Your task to perform on an android device: How do I get to the nearest Verizon Store? Image 0: 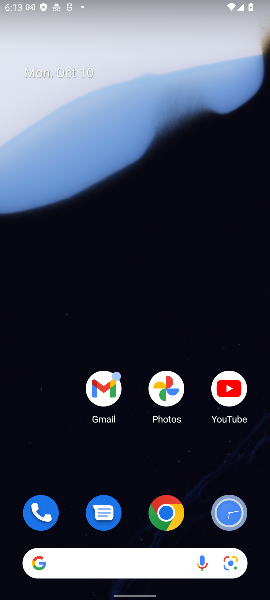
Step 0: click (156, 563)
Your task to perform on an android device: How do I get to the nearest Verizon Store? Image 1: 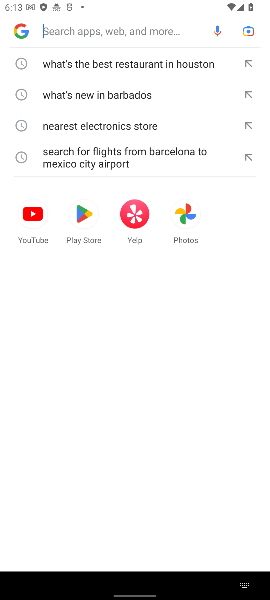
Step 1: type "How do I get to the nearest Verizon Store?"
Your task to perform on an android device: How do I get to the nearest Verizon Store? Image 2: 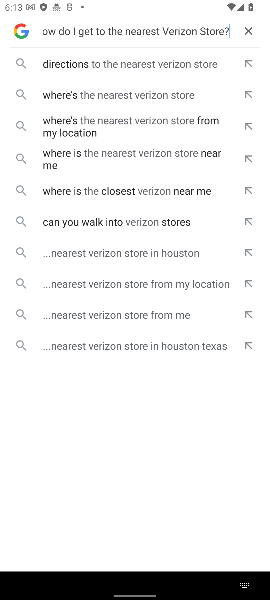
Step 2: click (110, 69)
Your task to perform on an android device: How do I get to the nearest Verizon Store? Image 3: 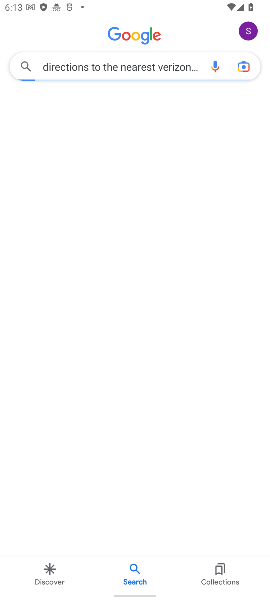
Step 3: task complete